Your task to perform on an android device: Go to eBay Image 0: 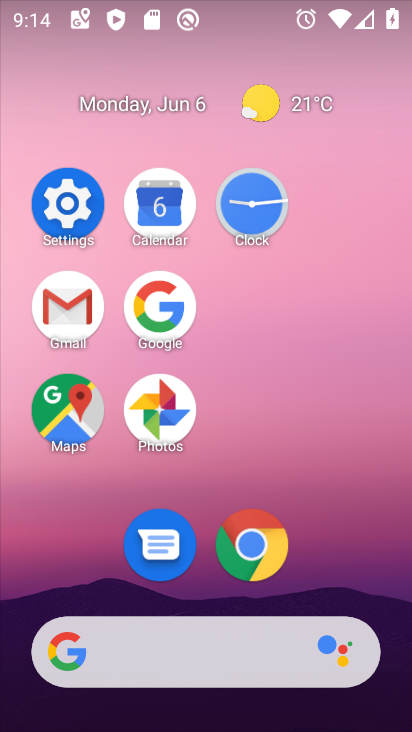
Step 0: click (179, 292)
Your task to perform on an android device: Go to eBay Image 1: 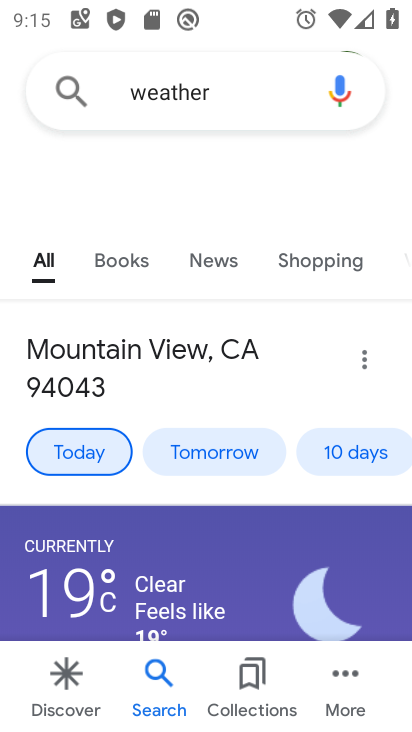
Step 1: click (238, 97)
Your task to perform on an android device: Go to eBay Image 2: 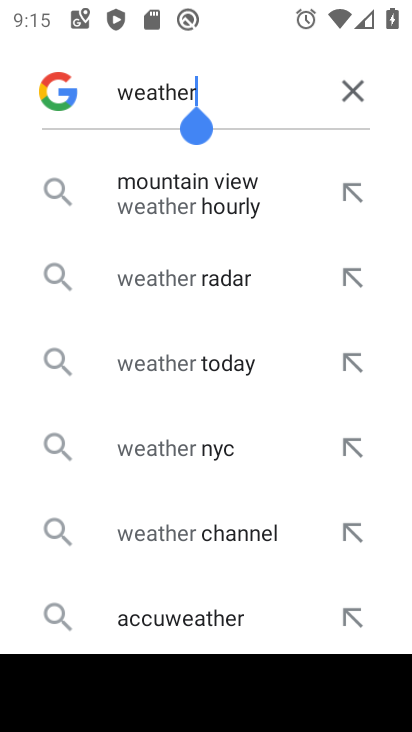
Step 2: click (356, 88)
Your task to perform on an android device: Go to eBay Image 3: 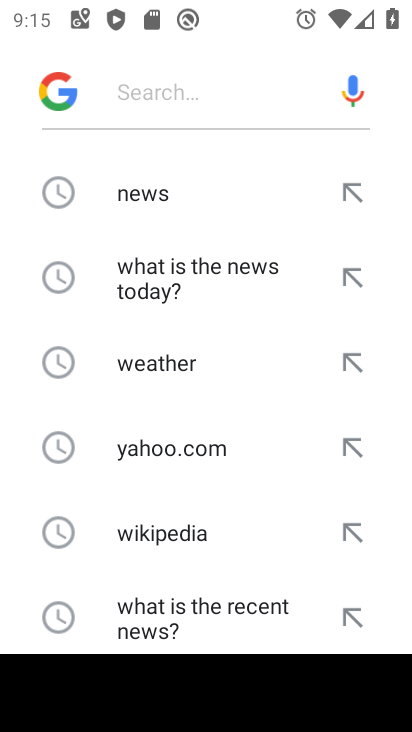
Step 3: drag from (204, 507) to (296, 213)
Your task to perform on an android device: Go to eBay Image 4: 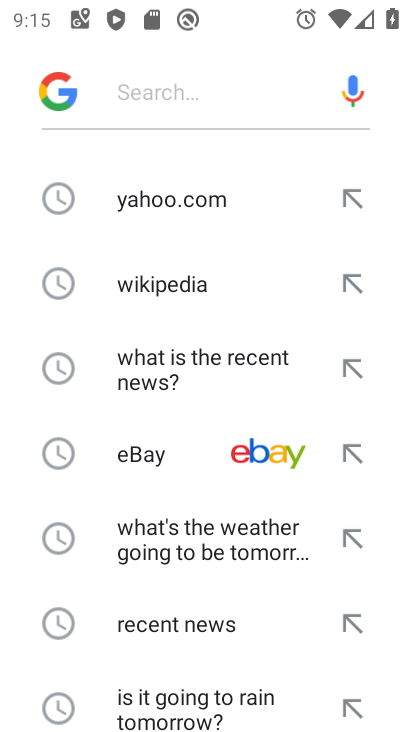
Step 4: click (193, 456)
Your task to perform on an android device: Go to eBay Image 5: 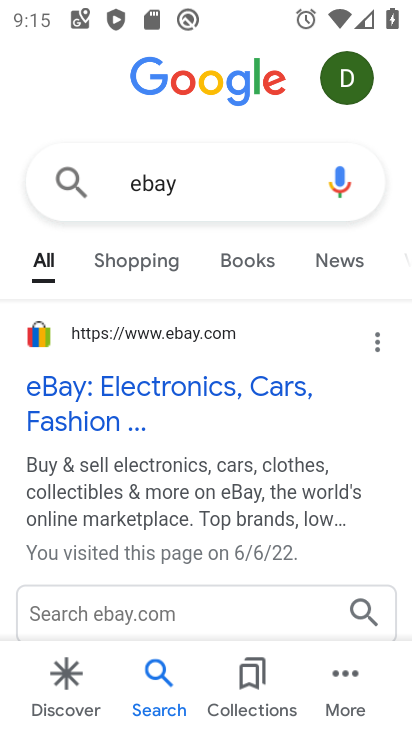
Step 5: task complete